Your task to perform on an android device: Do I have any events tomorrow? Image 0: 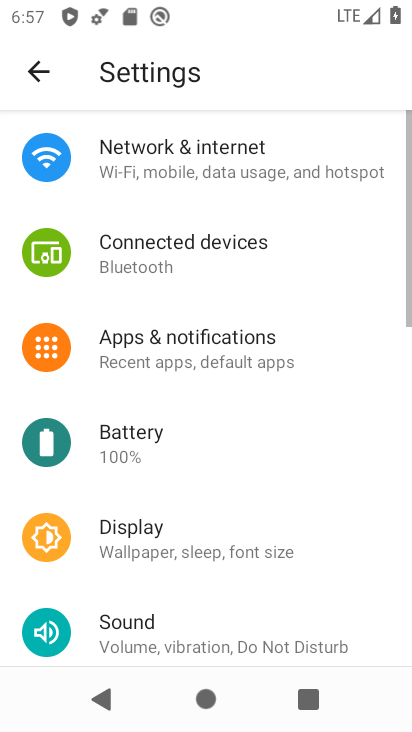
Step 0: press home button
Your task to perform on an android device: Do I have any events tomorrow? Image 1: 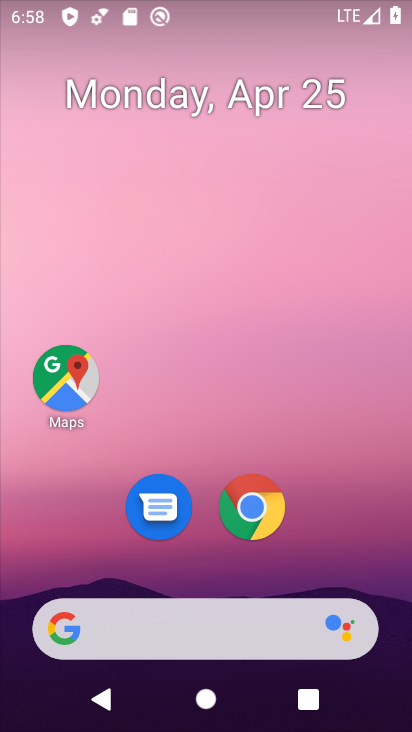
Step 1: drag from (331, 544) to (353, 120)
Your task to perform on an android device: Do I have any events tomorrow? Image 2: 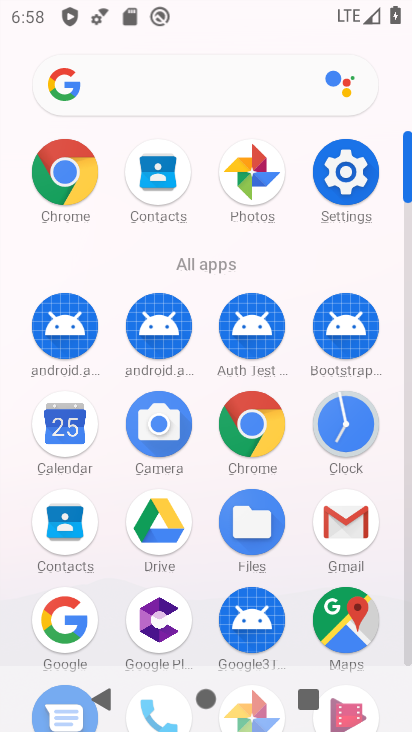
Step 2: click (66, 417)
Your task to perform on an android device: Do I have any events tomorrow? Image 3: 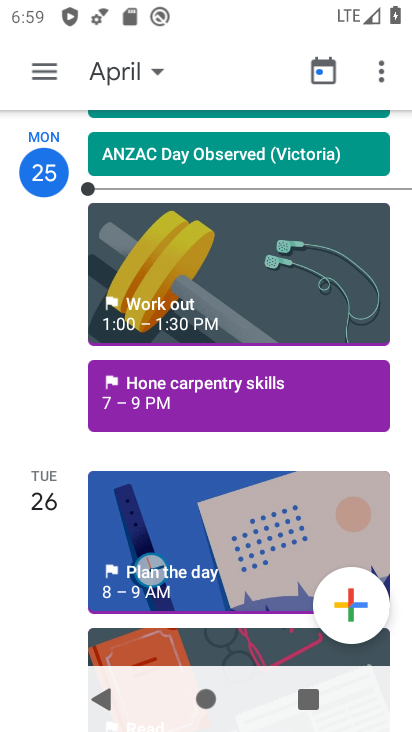
Step 3: click (145, 80)
Your task to perform on an android device: Do I have any events tomorrow? Image 4: 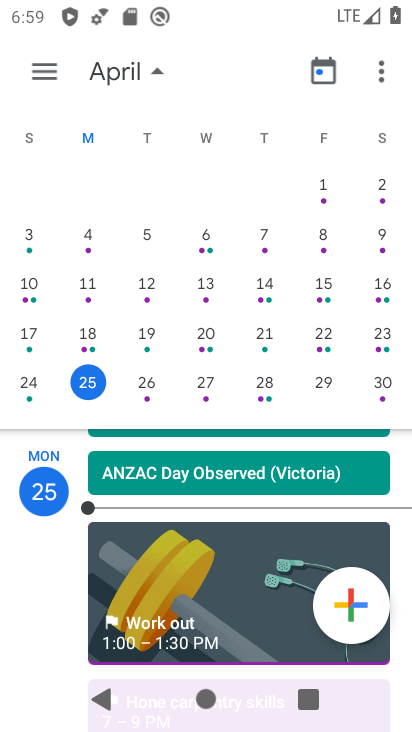
Step 4: click (152, 383)
Your task to perform on an android device: Do I have any events tomorrow? Image 5: 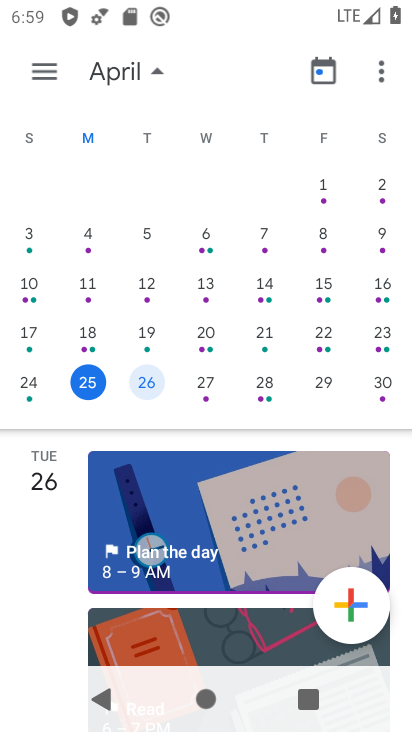
Step 5: task complete